Your task to perform on an android device: Open internet settings Image 0: 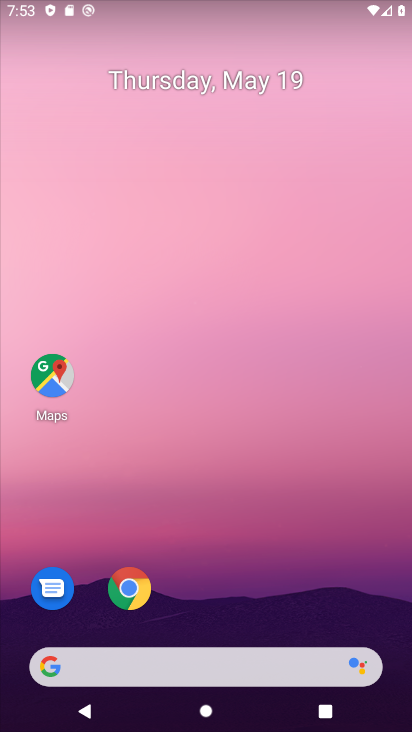
Step 0: drag from (222, 602) to (258, 272)
Your task to perform on an android device: Open internet settings Image 1: 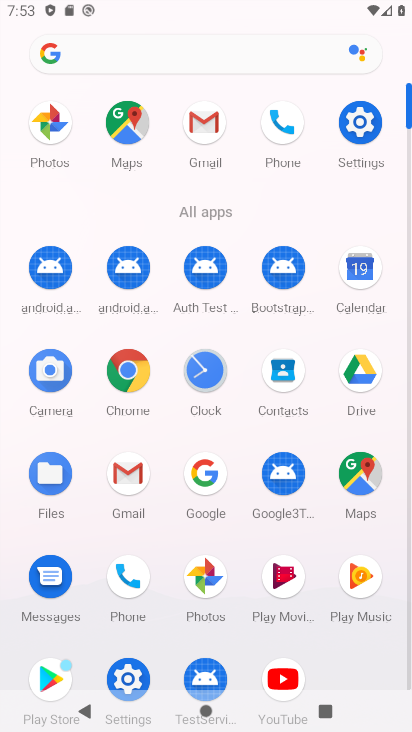
Step 1: click (362, 104)
Your task to perform on an android device: Open internet settings Image 2: 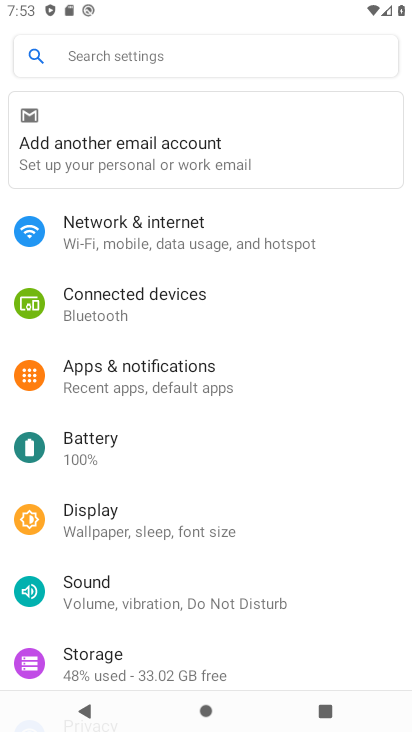
Step 2: click (160, 223)
Your task to perform on an android device: Open internet settings Image 3: 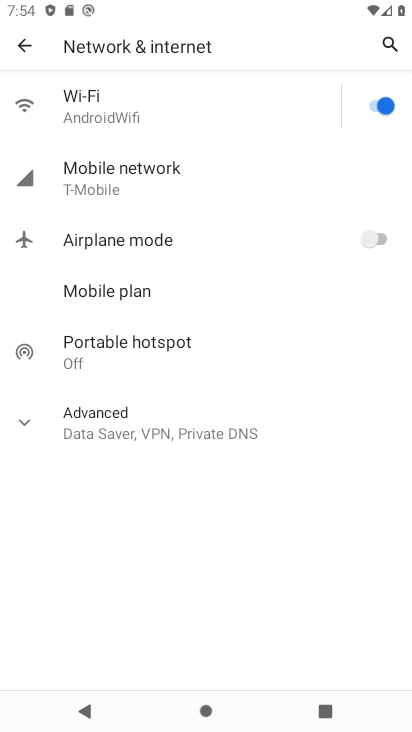
Step 3: task complete